Your task to perform on an android device: refresh tabs in the chrome app Image 0: 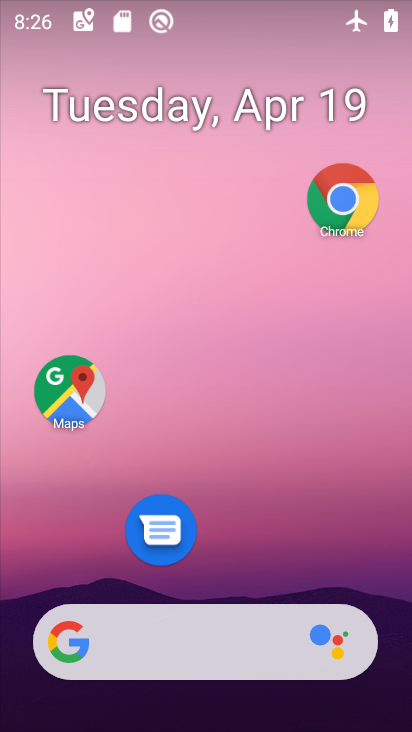
Step 0: click (345, 190)
Your task to perform on an android device: refresh tabs in the chrome app Image 1: 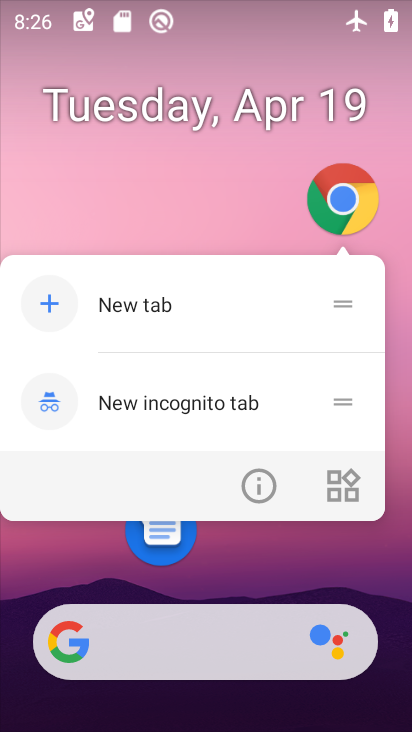
Step 1: click (251, 499)
Your task to perform on an android device: refresh tabs in the chrome app Image 2: 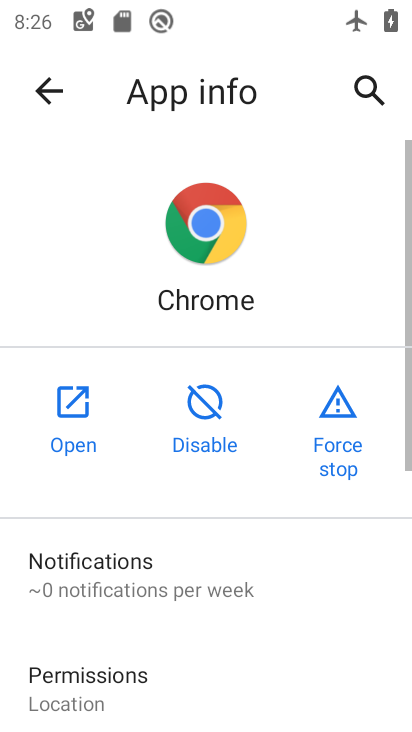
Step 2: click (65, 418)
Your task to perform on an android device: refresh tabs in the chrome app Image 3: 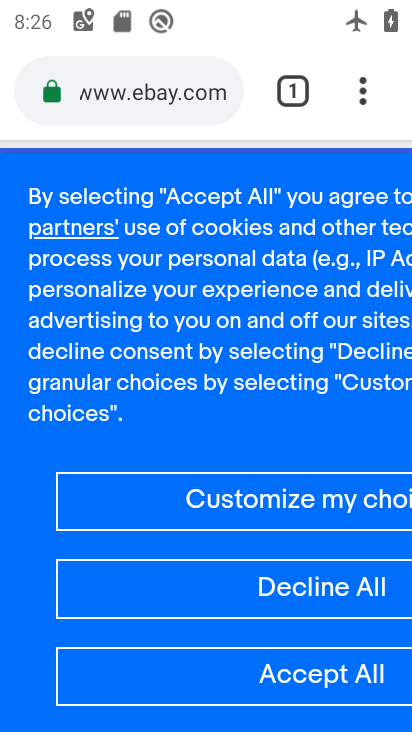
Step 3: click (360, 94)
Your task to perform on an android device: refresh tabs in the chrome app Image 4: 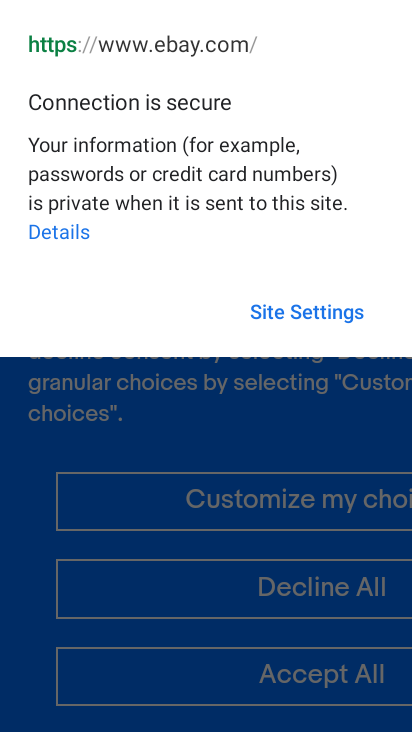
Step 4: task complete